Your task to perform on an android device: set the timer Image 0: 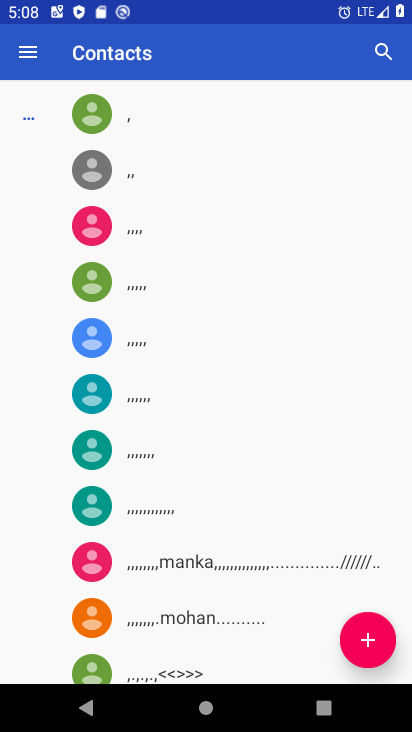
Step 0: press home button
Your task to perform on an android device: set the timer Image 1: 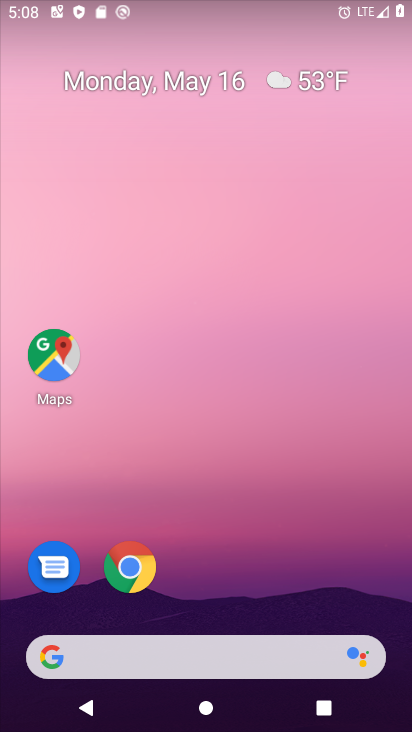
Step 1: drag from (284, 629) to (292, 4)
Your task to perform on an android device: set the timer Image 2: 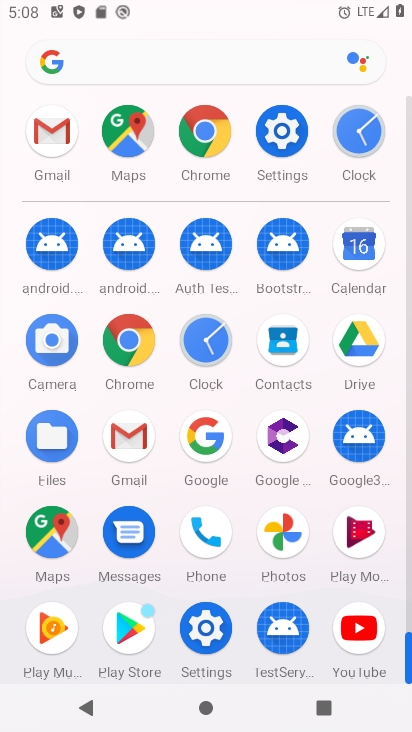
Step 2: click (343, 124)
Your task to perform on an android device: set the timer Image 3: 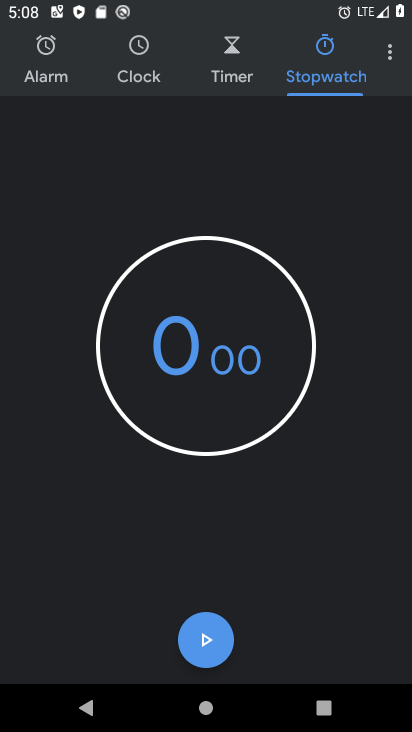
Step 3: click (234, 71)
Your task to perform on an android device: set the timer Image 4: 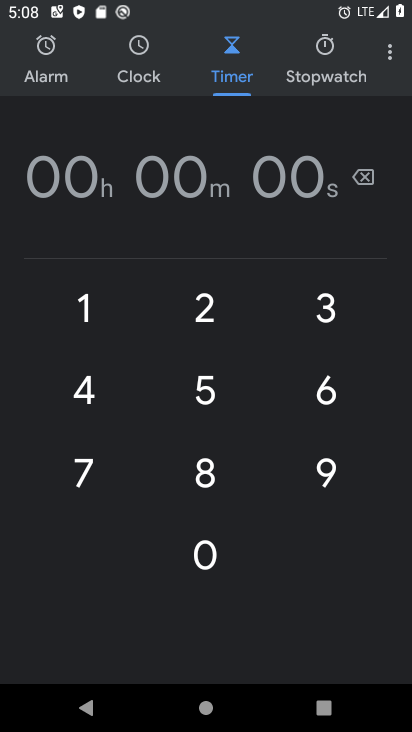
Step 4: click (221, 476)
Your task to perform on an android device: set the timer Image 5: 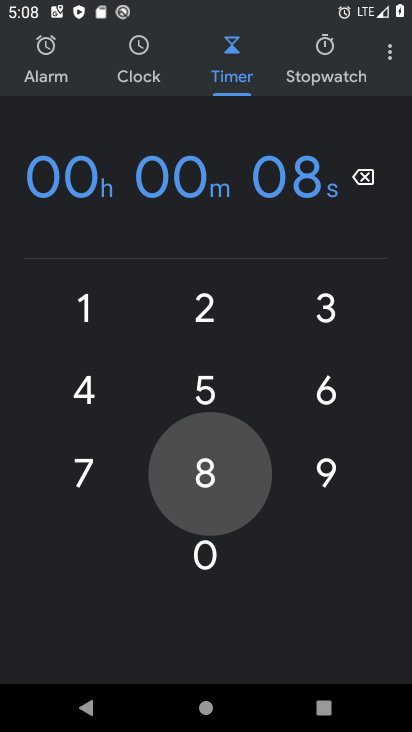
Step 5: click (215, 400)
Your task to perform on an android device: set the timer Image 6: 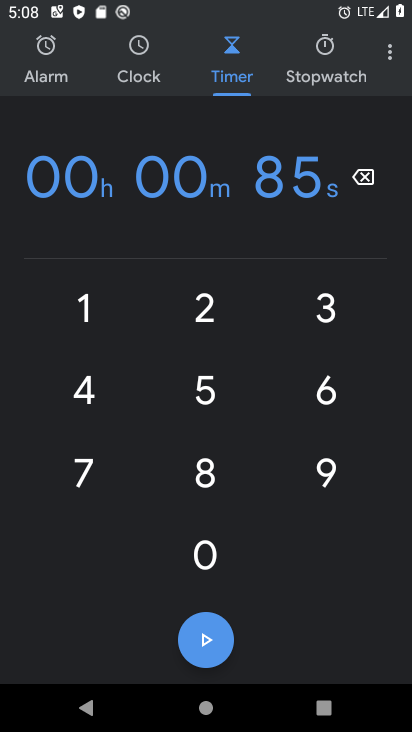
Step 6: click (212, 335)
Your task to perform on an android device: set the timer Image 7: 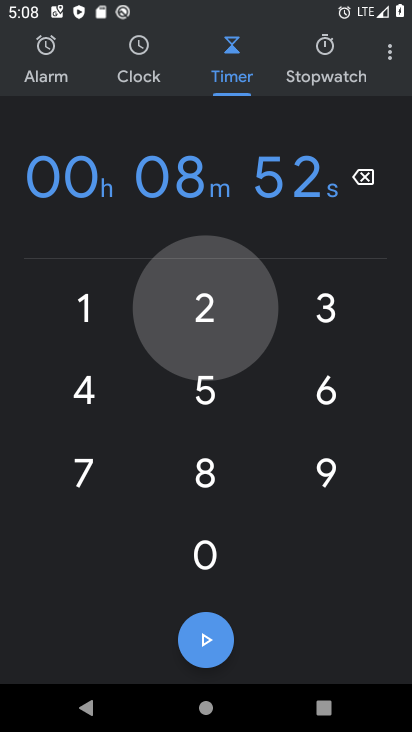
Step 7: click (365, 317)
Your task to perform on an android device: set the timer Image 8: 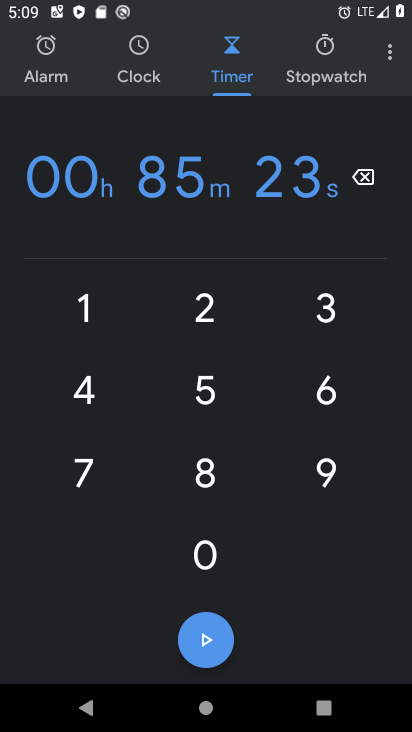
Step 8: click (323, 462)
Your task to perform on an android device: set the timer Image 9: 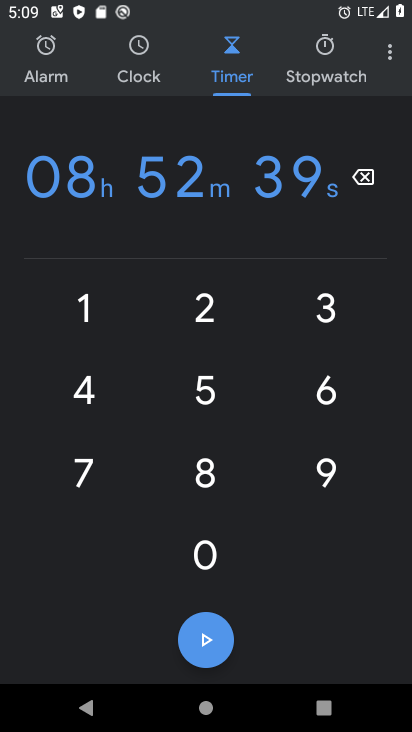
Step 9: click (196, 469)
Your task to perform on an android device: set the timer Image 10: 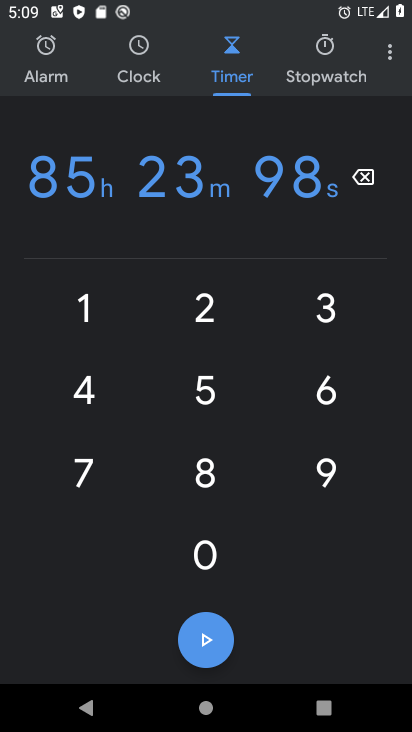
Step 10: task complete